Your task to perform on an android device: turn notification dots on Image 0: 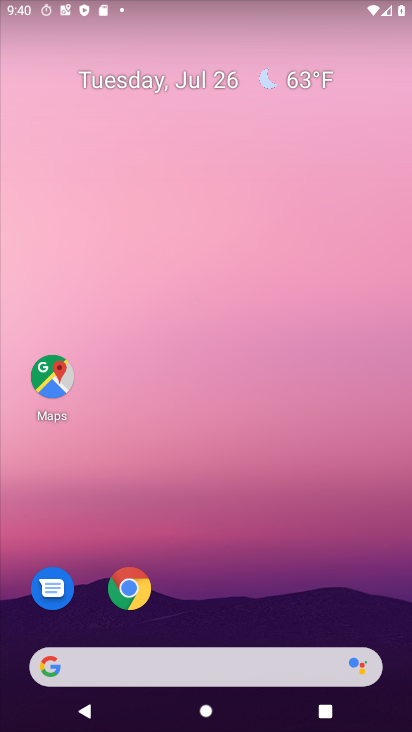
Step 0: drag from (281, 645) to (398, 149)
Your task to perform on an android device: turn notification dots on Image 1: 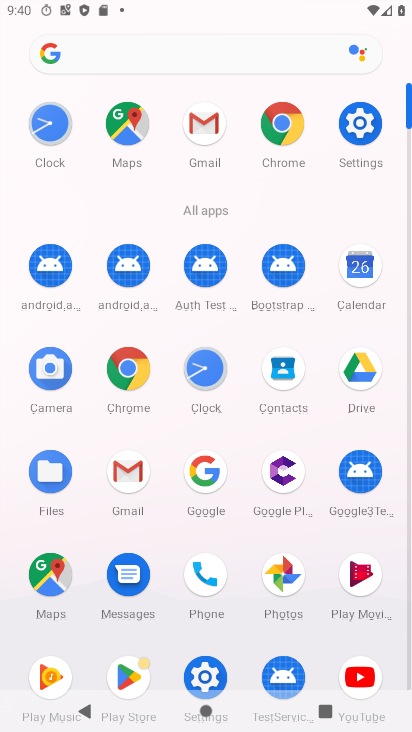
Step 1: click (357, 140)
Your task to perform on an android device: turn notification dots on Image 2: 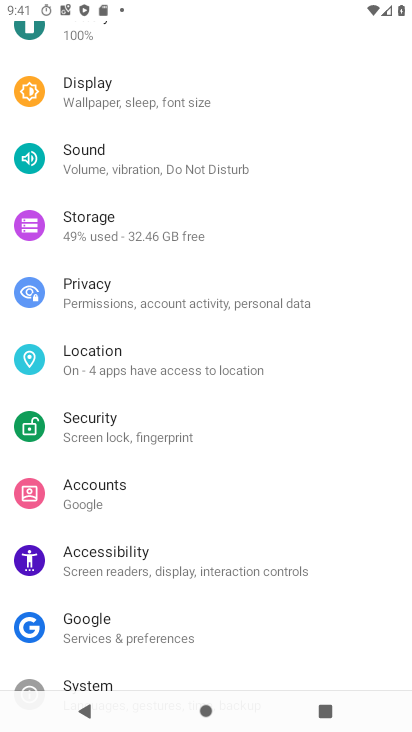
Step 2: drag from (120, 50) to (23, 286)
Your task to perform on an android device: turn notification dots on Image 3: 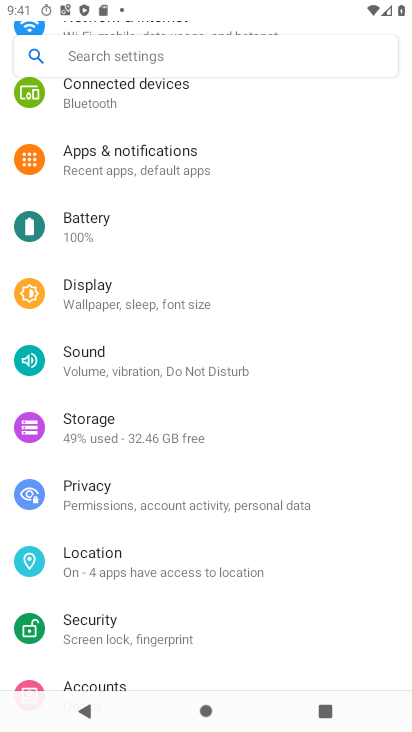
Step 3: click (109, 167)
Your task to perform on an android device: turn notification dots on Image 4: 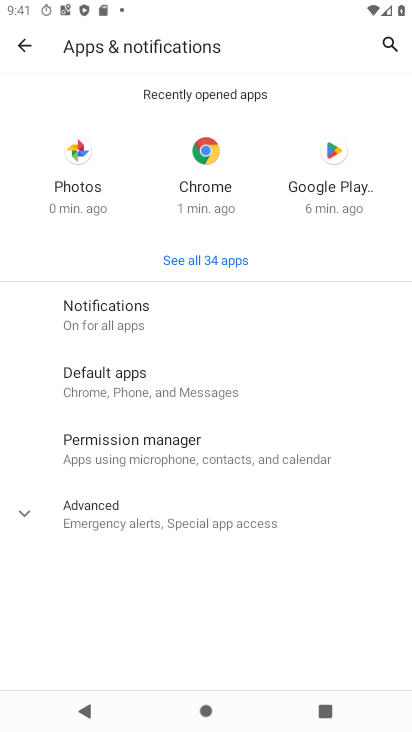
Step 4: click (99, 307)
Your task to perform on an android device: turn notification dots on Image 5: 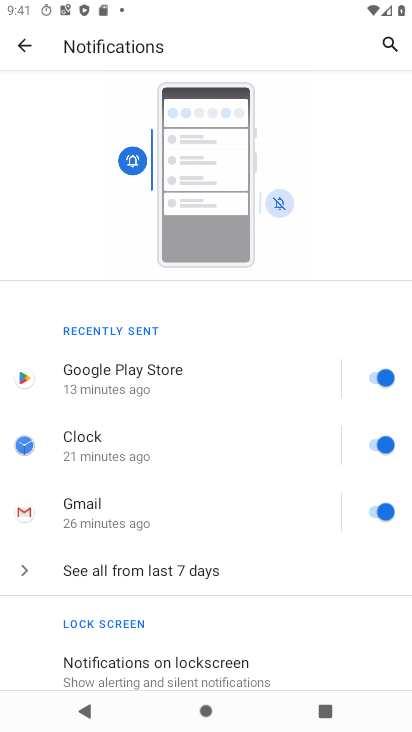
Step 5: drag from (92, 660) to (154, 297)
Your task to perform on an android device: turn notification dots on Image 6: 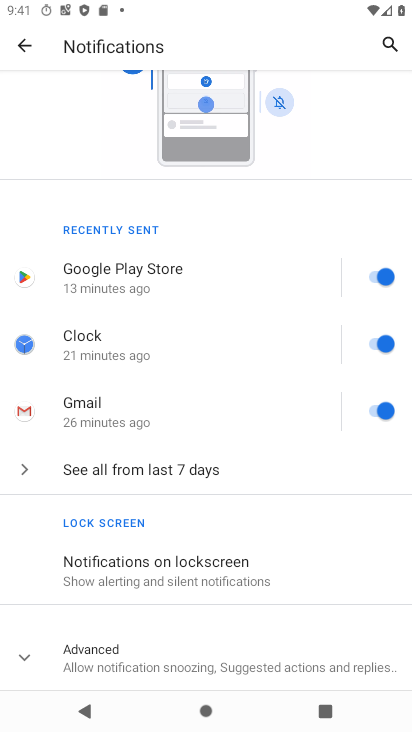
Step 6: click (152, 658)
Your task to perform on an android device: turn notification dots on Image 7: 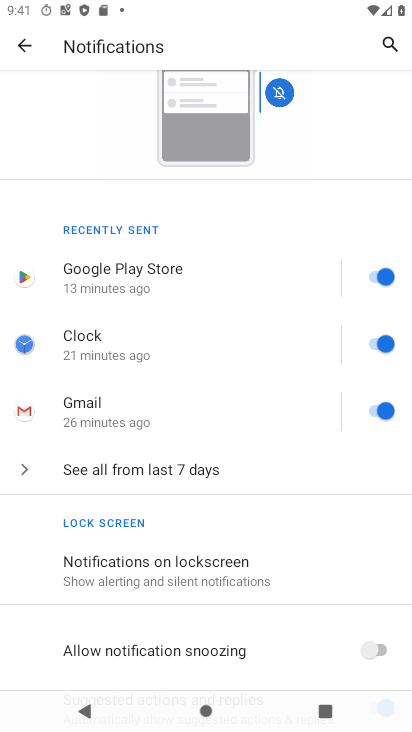
Step 7: task complete